Your task to perform on an android device: Is it going to rain this weekend? Image 0: 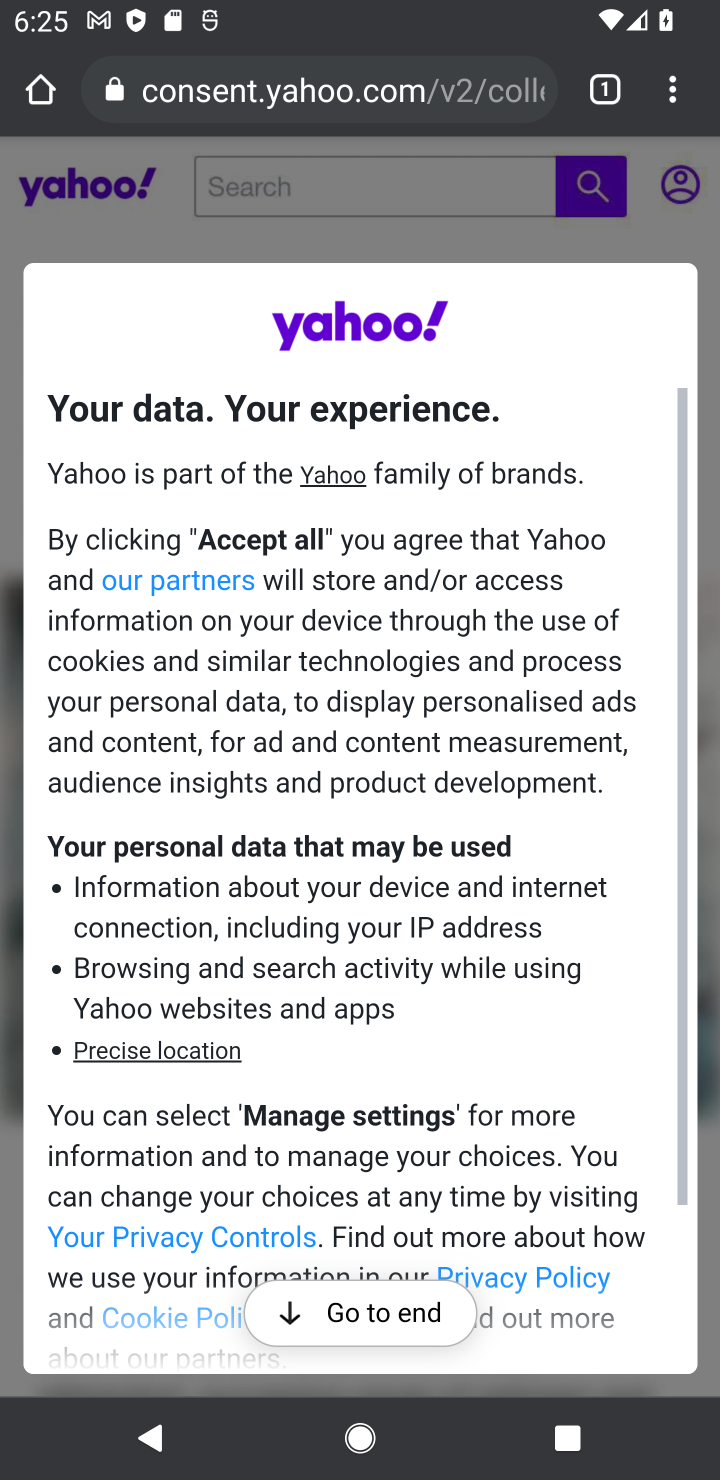
Step 0: press home button
Your task to perform on an android device: Is it going to rain this weekend? Image 1: 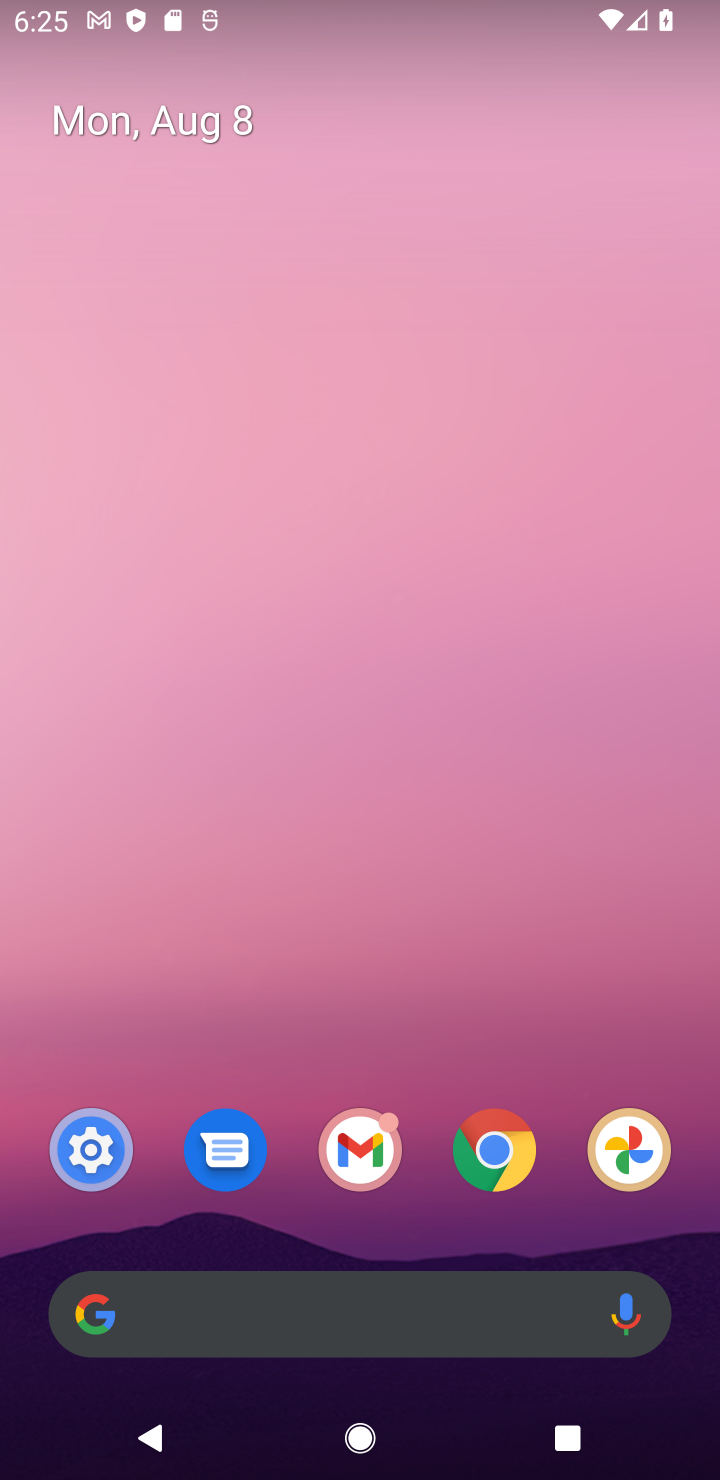
Step 1: task complete